Your task to perform on an android device: Open Android settings Image 0: 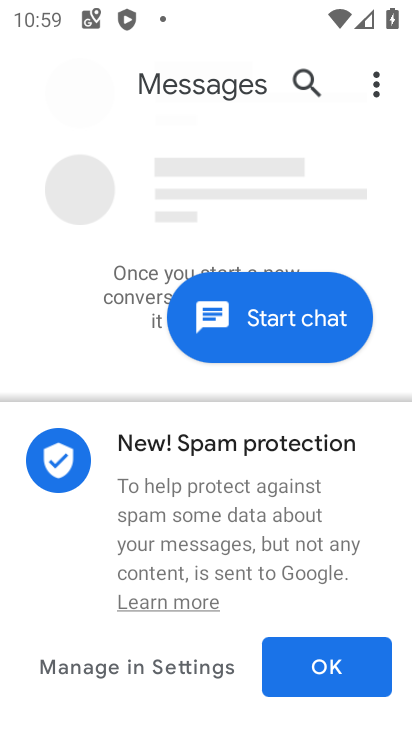
Step 0: press home button
Your task to perform on an android device: Open Android settings Image 1: 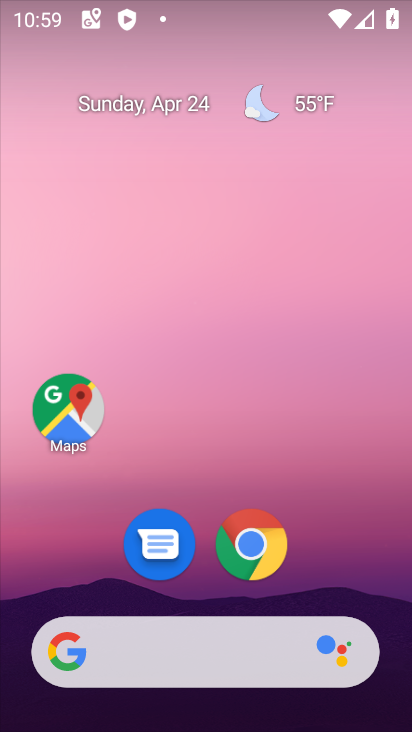
Step 1: drag from (315, 500) to (123, 98)
Your task to perform on an android device: Open Android settings Image 2: 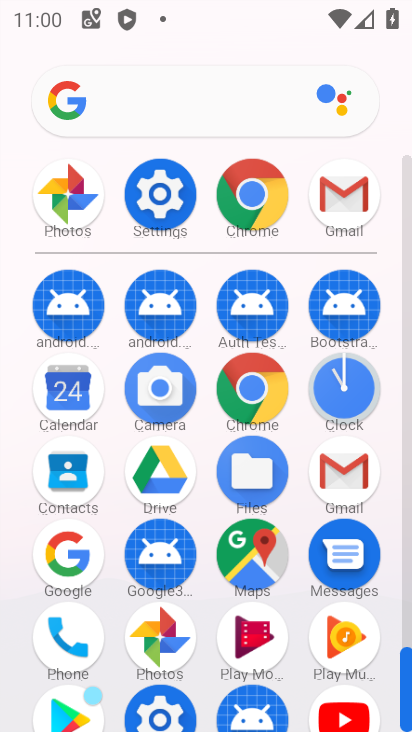
Step 2: click (160, 194)
Your task to perform on an android device: Open Android settings Image 3: 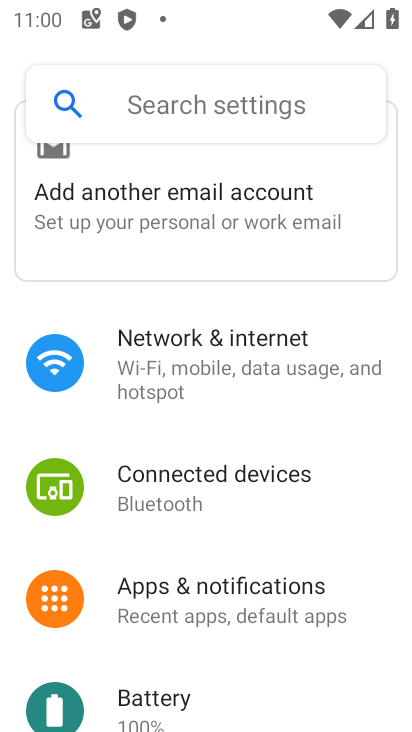
Step 3: drag from (238, 677) to (210, 79)
Your task to perform on an android device: Open Android settings Image 4: 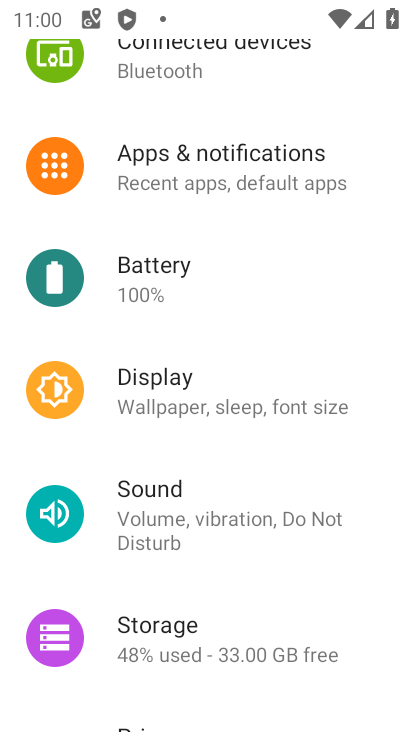
Step 4: drag from (252, 679) to (200, 140)
Your task to perform on an android device: Open Android settings Image 5: 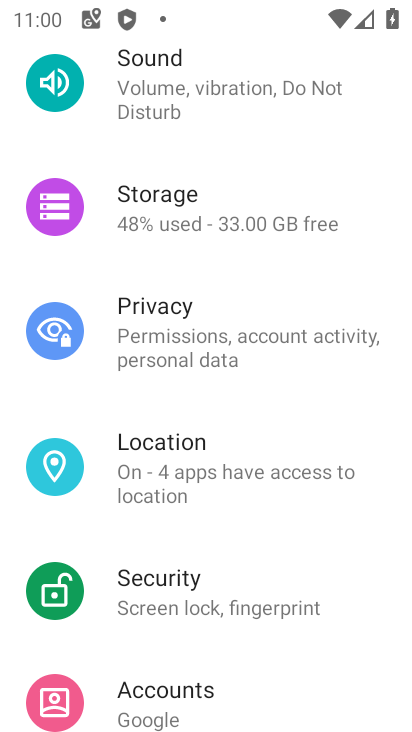
Step 5: drag from (207, 455) to (180, 169)
Your task to perform on an android device: Open Android settings Image 6: 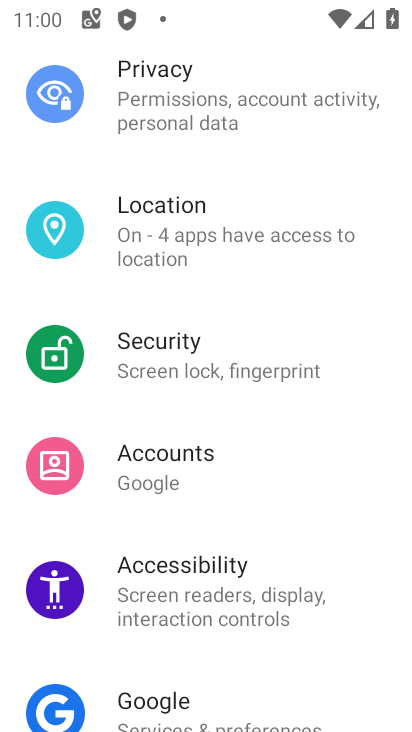
Step 6: drag from (252, 633) to (267, 82)
Your task to perform on an android device: Open Android settings Image 7: 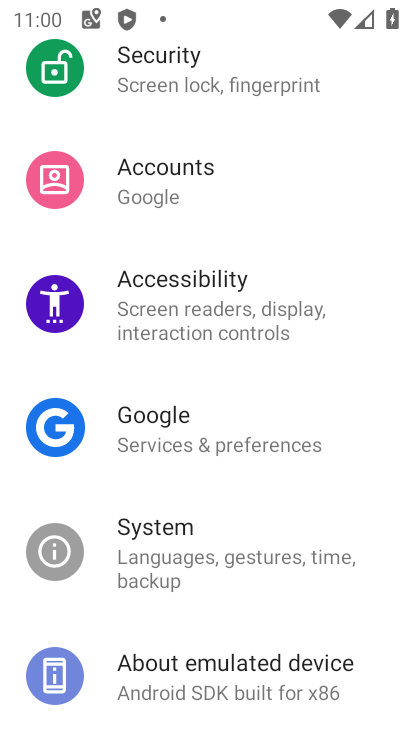
Step 7: click (248, 685)
Your task to perform on an android device: Open Android settings Image 8: 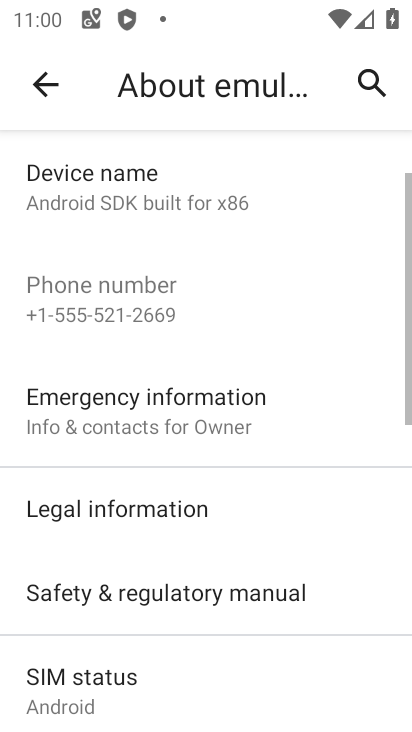
Step 8: task complete